Your task to perform on an android device: Open Google Maps and go to "Timeline" Image 0: 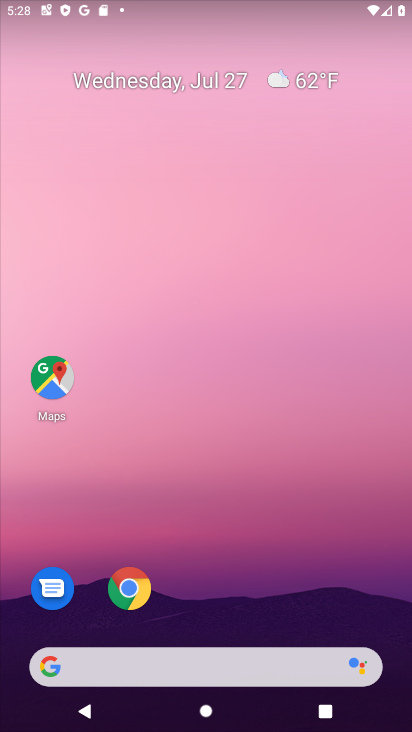
Step 0: drag from (193, 604) to (230, 1)
Your task to perform on an android device: Open Google Maps and go to "Timeline" Image 1: 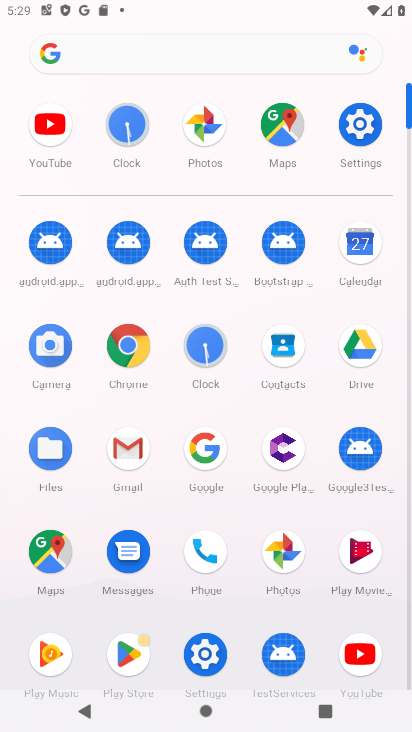
Step 1: click (284, 134)
Your task to perform on an android device: Open Google Maps and go to "Timeline" Image 2: 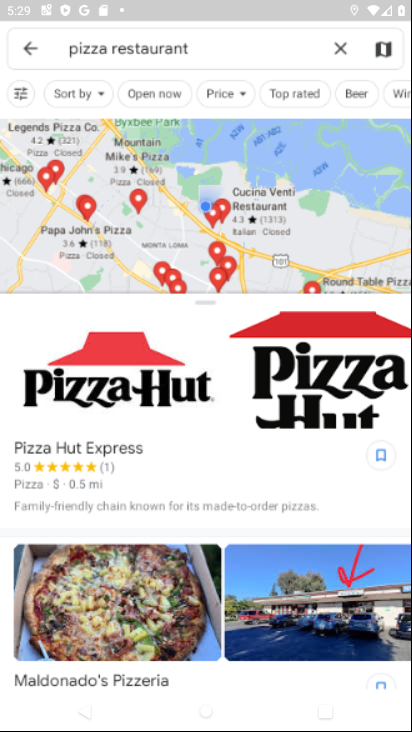
Step 2: click (338, 47)
Your task to perform on an android device: Open Google Maps and go to "Timeline" Image 3: 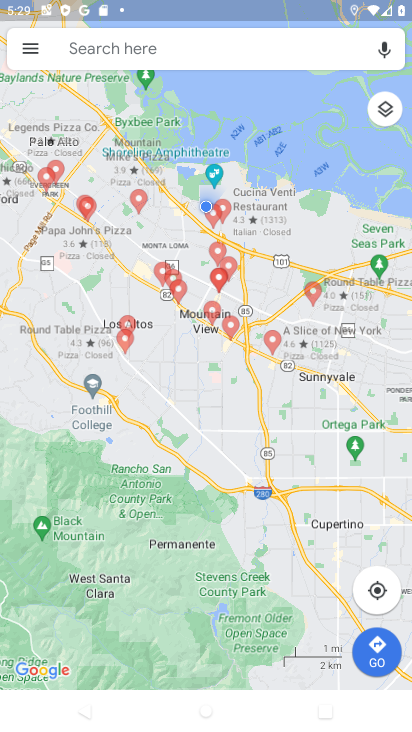
Step 3: click (24, 49)
Your task to perform on an android device: Open Google Maps and go to "Timeline" Image 4: 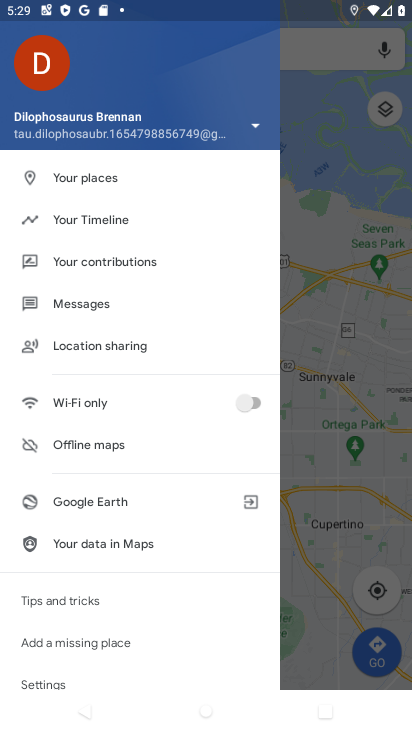
Step 4: click (81, 221)
Your task to perform on an android device: Open Google Maps and go to "Timeline" Image 5: 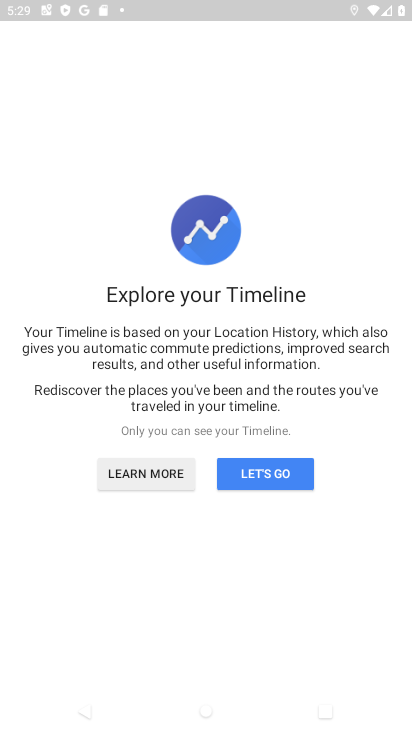
Step 5: click (249, 479)
Your task to perform on an android device: Open Google Maps and go to "Timeline" Image 6: 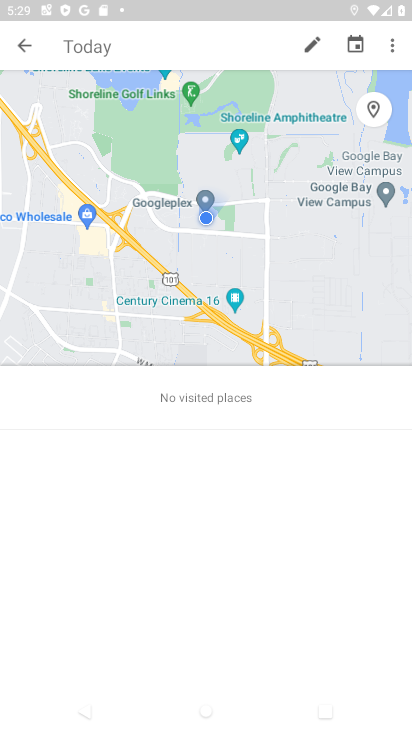
Step 6: task complete